Your task to perform on an android device: choose inbox layout in the gmail app Image 0: 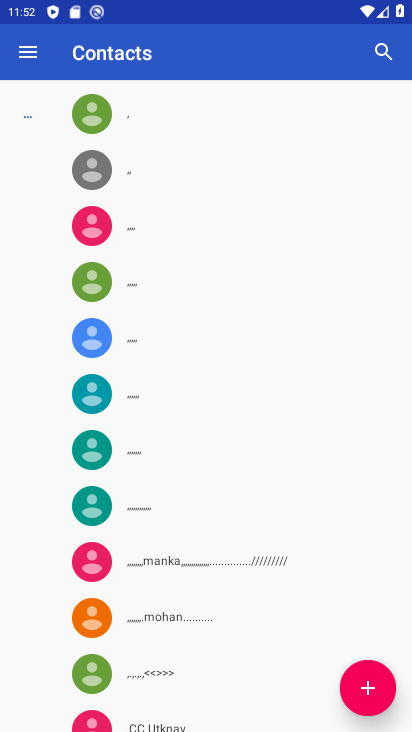
Step 0: press home button
Your task to perform on an android device: choose inbox layout in the gmail app Image 1: 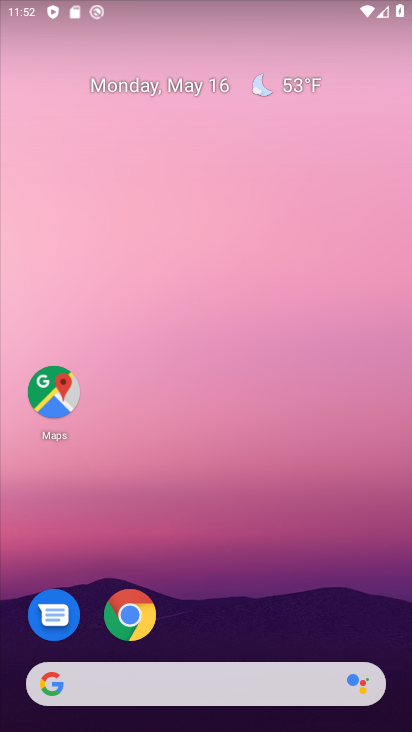
Step 1: drag from (260, 602) to (278, 41)
Your task to perform on an android device: choose inbox layout in the gmail app Image 2: 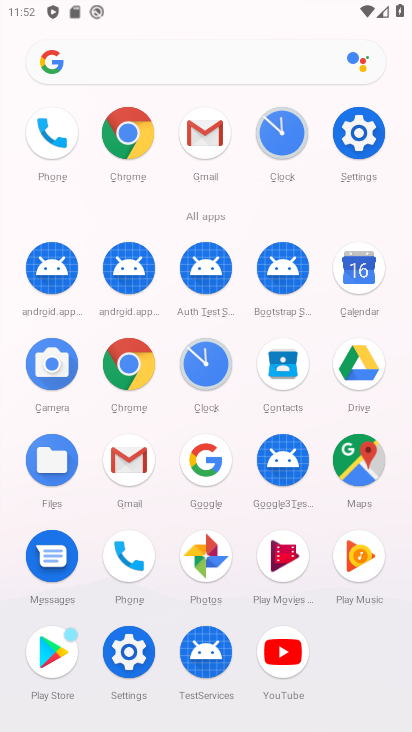
Step 2: click (130, 469)
Your task to perform on an android device: choose inbox layout in the gmail app Image 3: 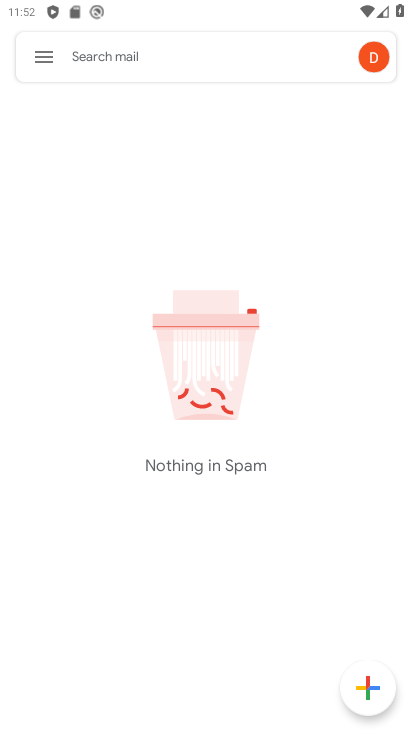
Step 3: click (42, 66)
Your task to perform on an android device: choose inbox layout in the gmail app Image 4: 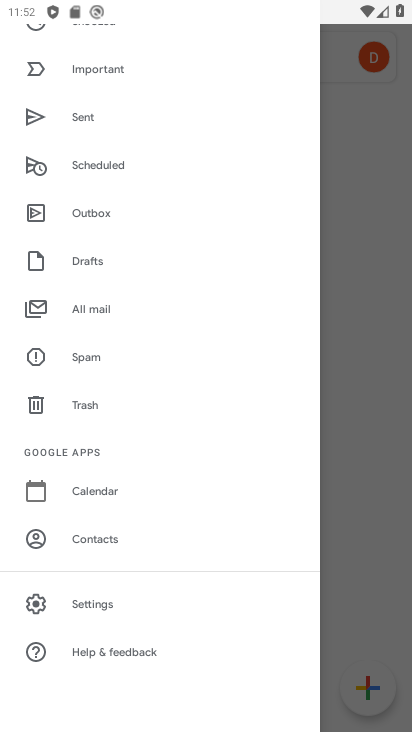
Step 4: drag from (111, 87) to (102, 402)
Your task to perform on an android device: choose inbox layout in the gmail app Image 5: 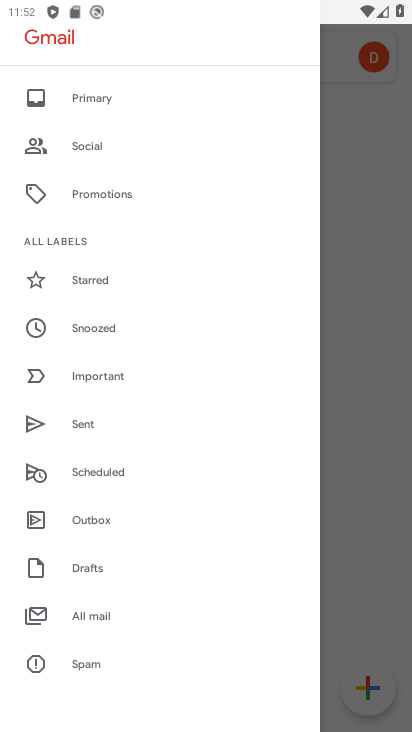
Step 5: drag from (126, 134) to (115, 272)
Your task to perform on an android device: choose inbox layout in the gmail app Image 6: 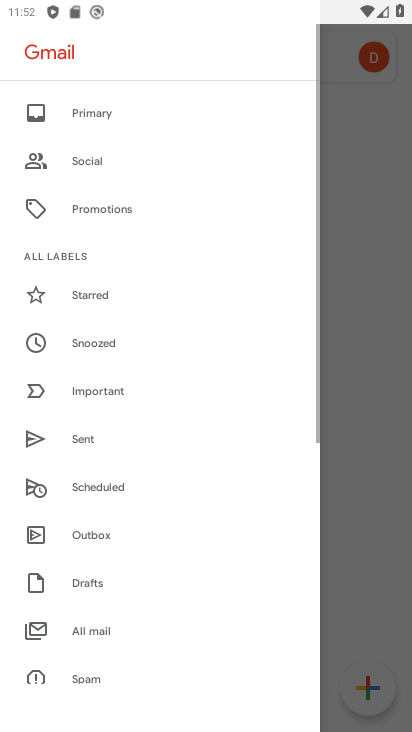
Step 6: click (135, 130)
Your task to perform on an android device: choose inbox layout in the gmail app Image 7: 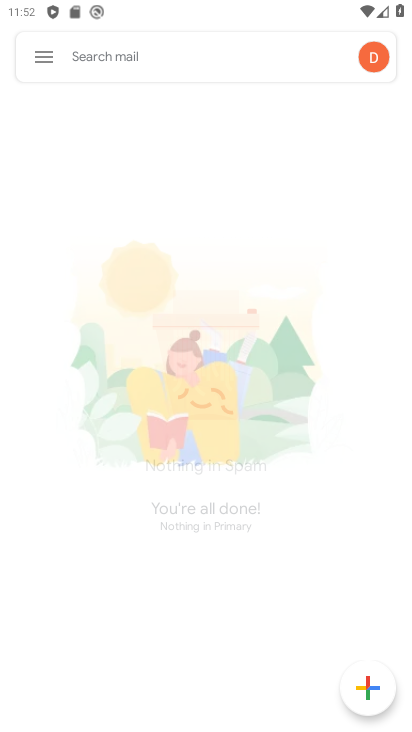
Step 7: task complete